Your task to perform on an android device: turn on data saver in the chrome app Image 0: 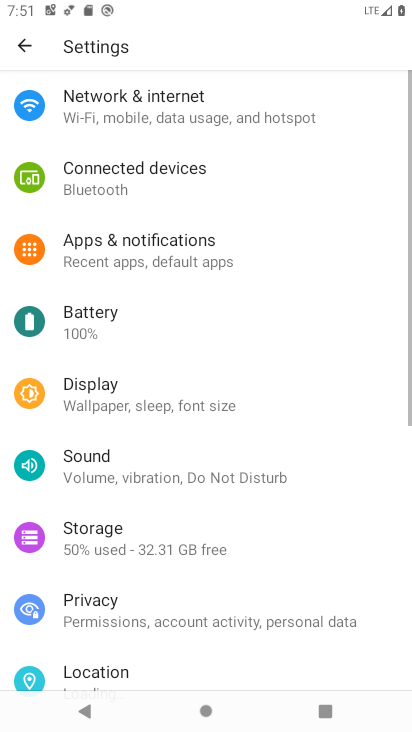
Step 0: press home button
Your task to perform on an android device: turn on data saver in the chrome app Image 1: 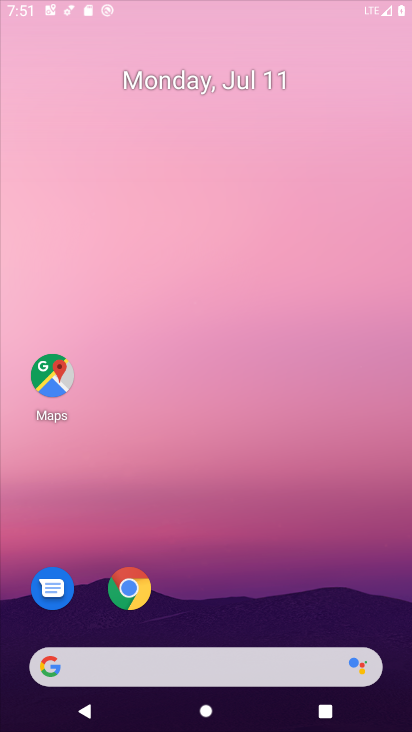
Step 1: drag from (372, 511) to (265, 0)
Your task to perform on an android device: turn on data saver in the chrome app Image 2: 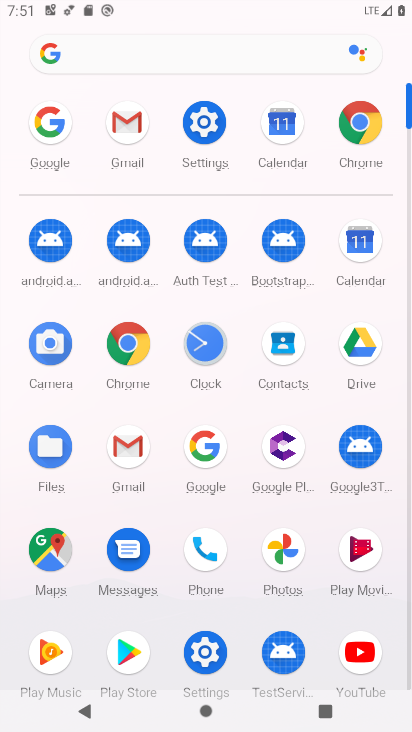
Step 2: click (378, 116)
Your task to perform on an android device: turn on data saver in the chrome app Image 3: 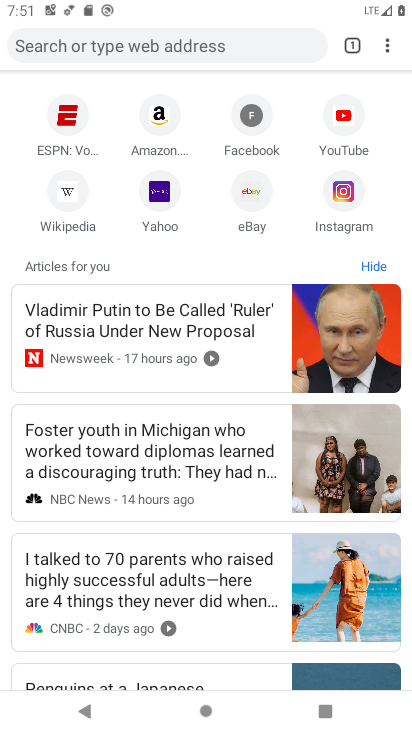
Step 3: click (382, 47)
Your task to perform on an android device: turn on data saver in the chrome app Image 4: 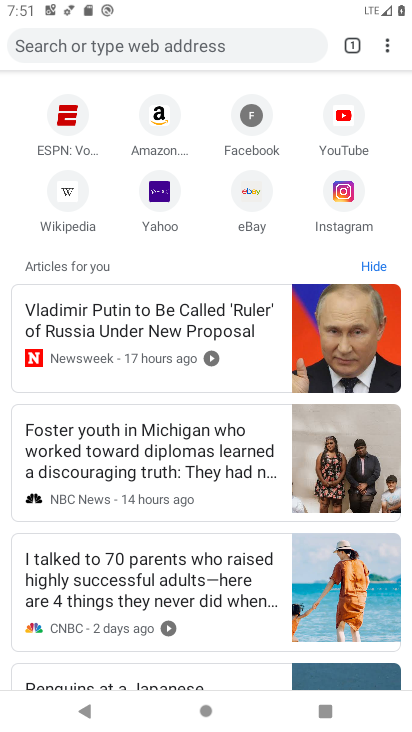
Step 4: click (385, 41)
Your task to perform on an android device: turn on data saver in the chrome app Image 5: 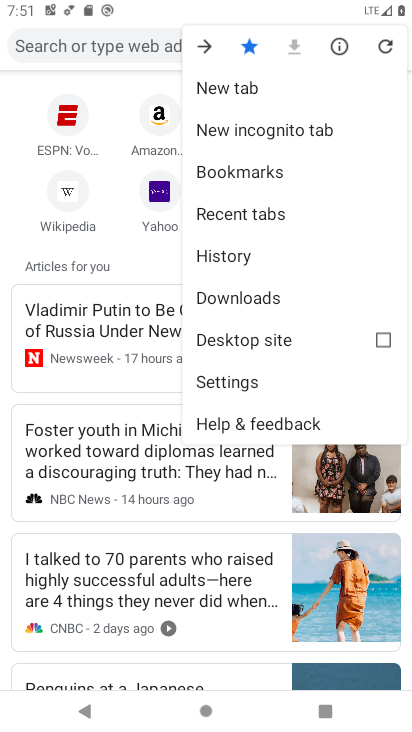
Step 5: click (239, 369)
Your task to perform on an android device: turn on data saver in the chrome app Image 6: 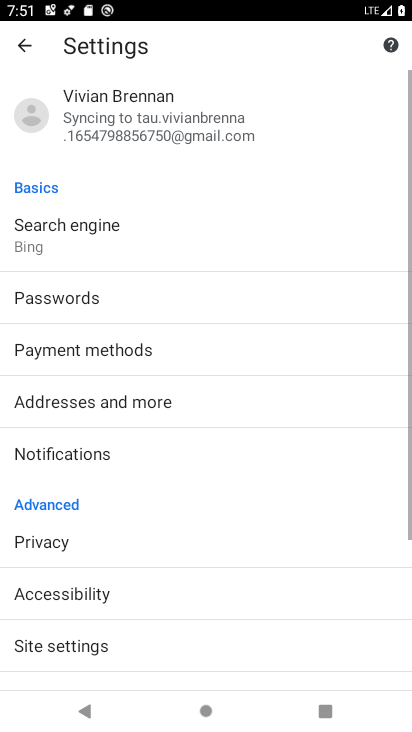
Step 6: drag from (77, 629) to (69, 135)
Your task to perform on an android device: turn on data saver in the chrome app Image 7: 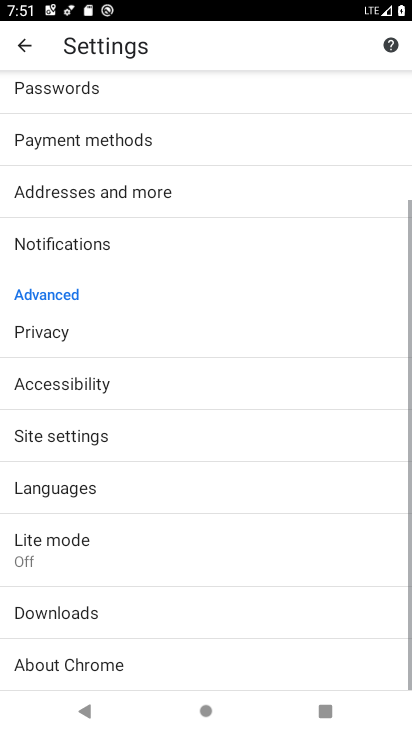
Step 7: click (98, 542)
Your task to perform on an android device: turn on data saver in the chrome app Image 8: 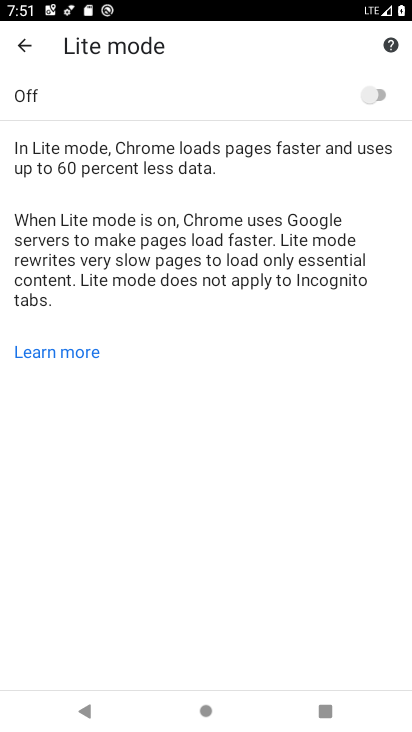
Step 8: click (374, 92)
Your task to perform on an android device: turn on data saver in the chrome app Image 9: 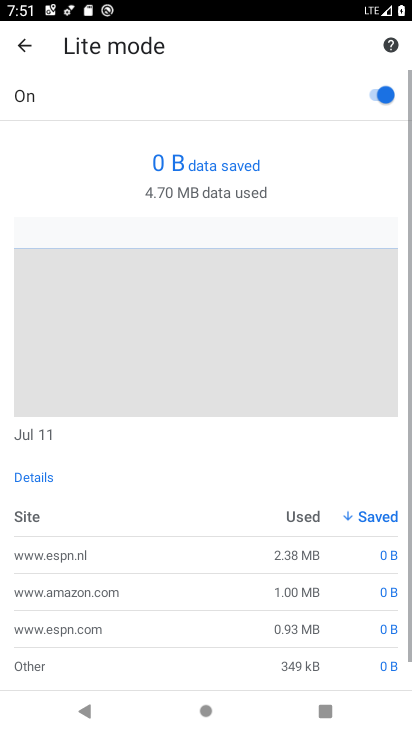
Step 9: task complete